Your task to perform on an android device: turn on location history Image 0: 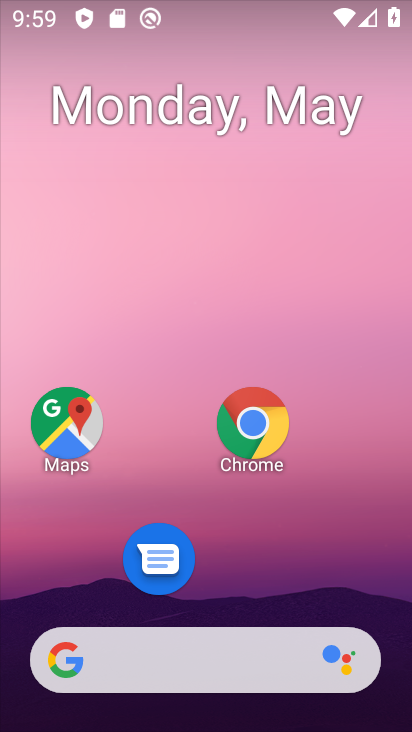
Step 0: drag from (240, 292) to (243, 253)
Your task to perform on an android device: turn on location history Image 1: 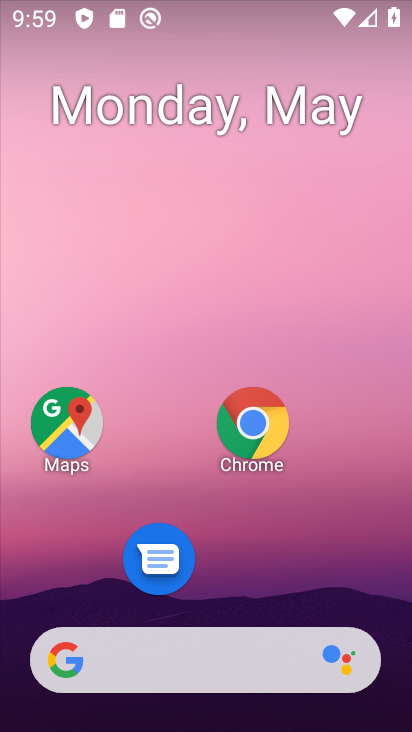
Step 1: drag from (217, 584) to (256, 0)
Your task to perform on an android device: turn on location history Image 2: 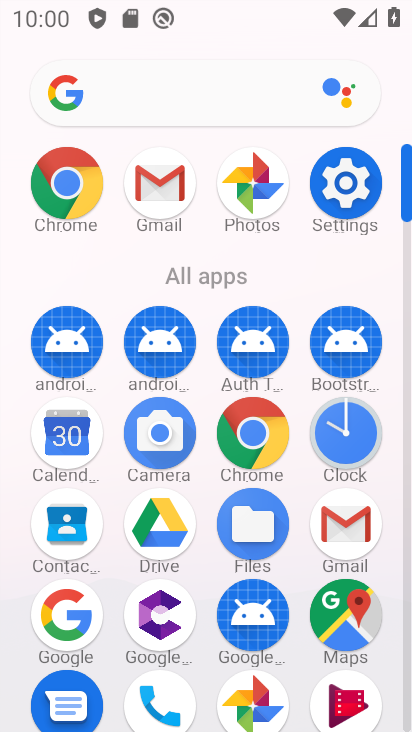
Step 2: click (347, 219)
Your task to perform on an android device: turn on location history Image 3: 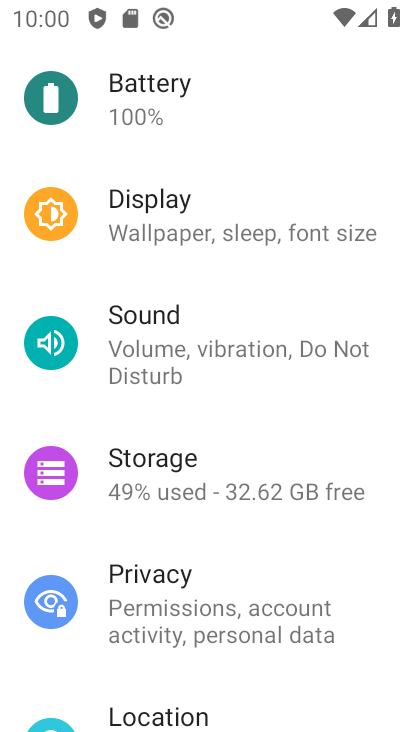
Step 3: click (160, 721)
Your task to perform on an android device: turn on location history Image 4: 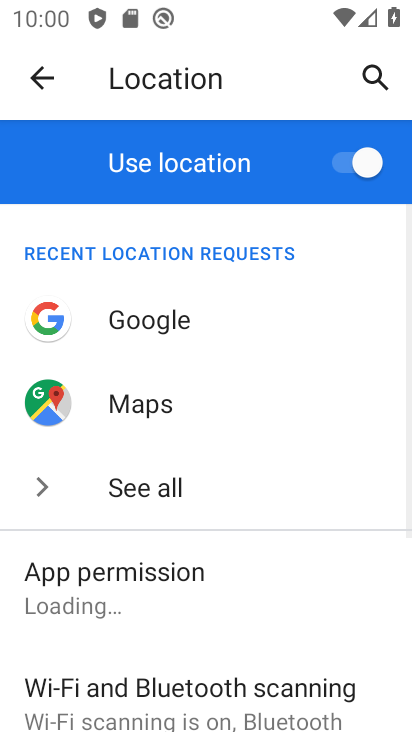
Step 4: drag from (160, 721) to (273, 299)
Your task to perform on an android device: turn on location history Image 5: 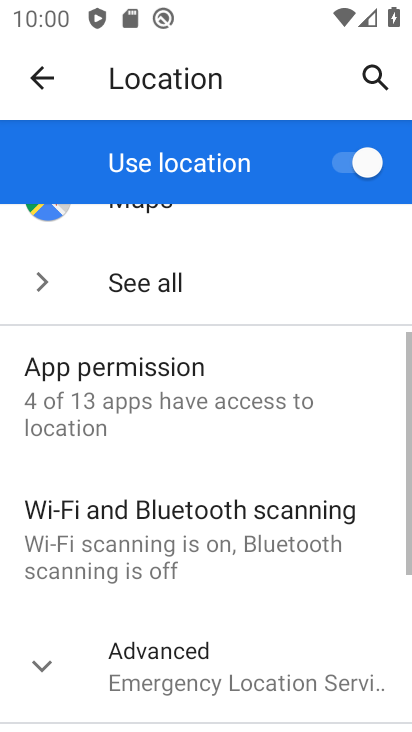
Step 5: drag from (250, 573) to (323, 130)
Your task to perform on an android device: turn on location history Image 6: 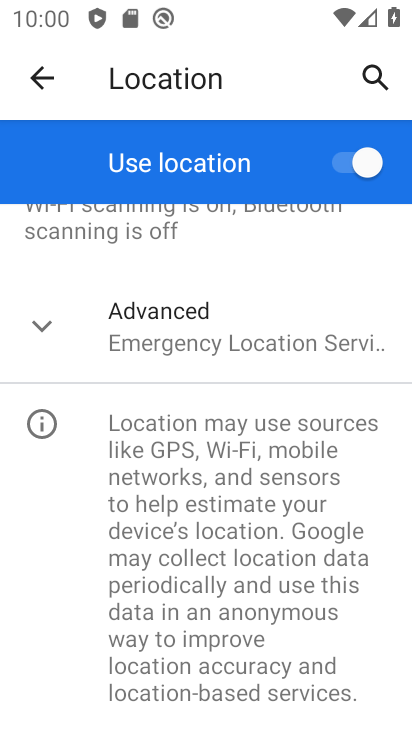
Step 6: click (170, 324)
Your task to perform on an android device: turn on location history Image 7: 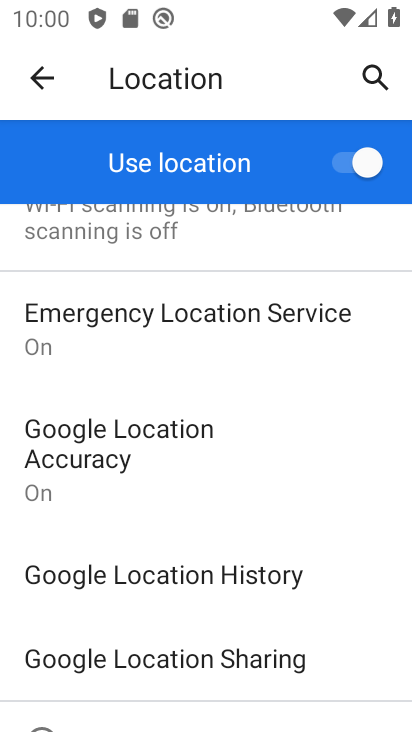
Step 7: click (129, 558)
Your task to perform on an android device: turn on location history Image 8: 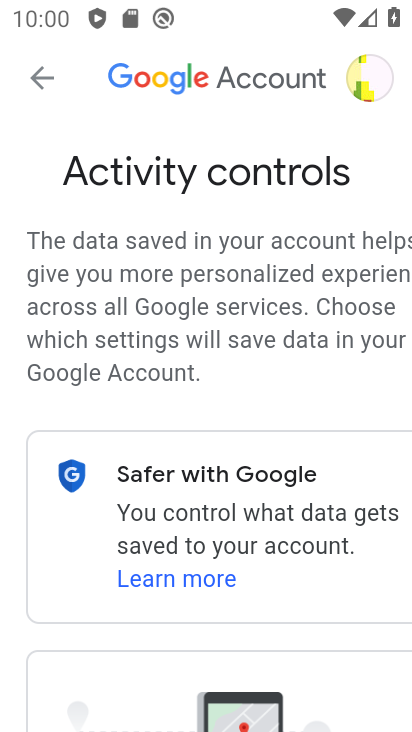
Step 8: task complete